Your task to perform on an android device: Go to Yahoo.com Image 0: 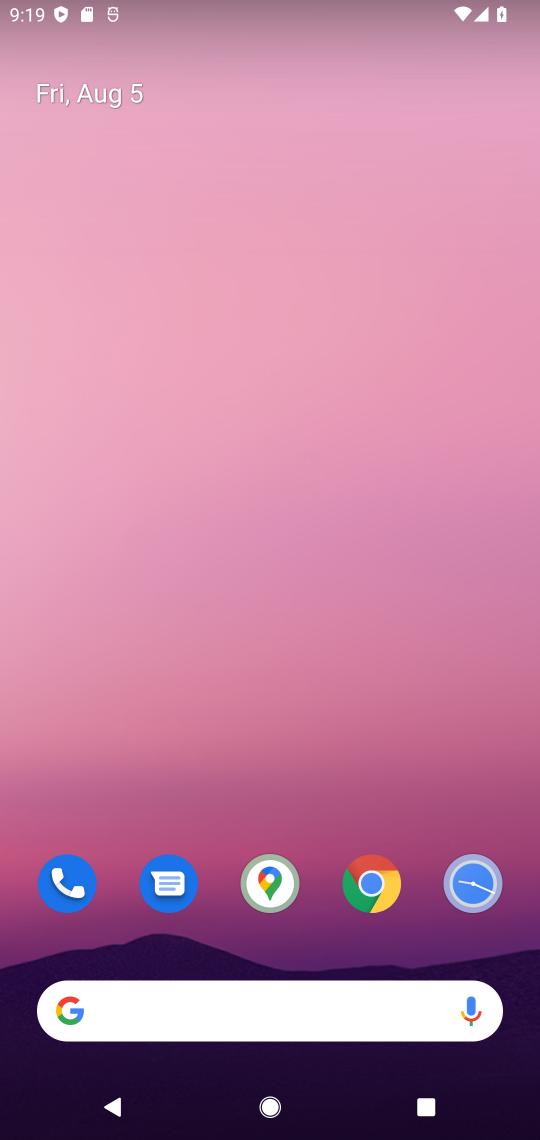
Step 0: click (366, 898)
Your task to perform on an android device: Go to Yahoo.com Image 1: 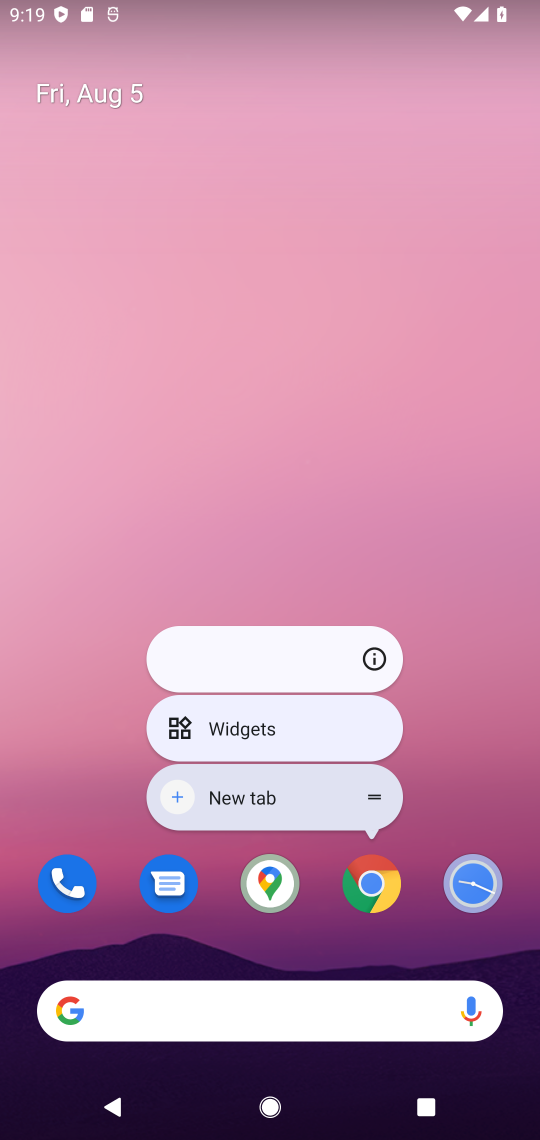
Step 1: click (366, 895)
Your task to perform on an android device: Go to Yahoo.com Image 2: 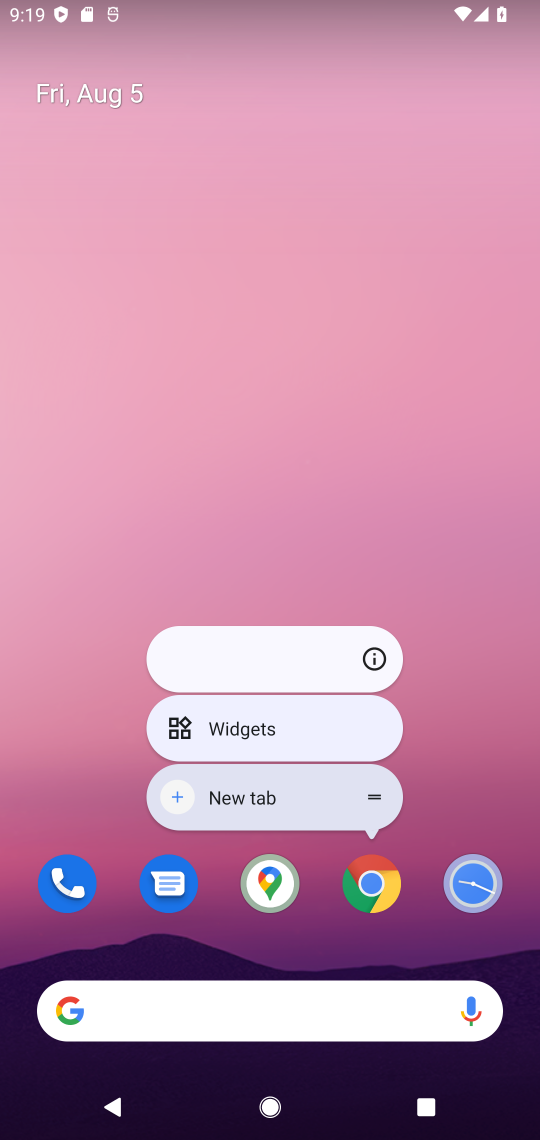
Step 2: click (382, 889)
Your task to perform on an android device: Go to Yahoo.com Image 3: 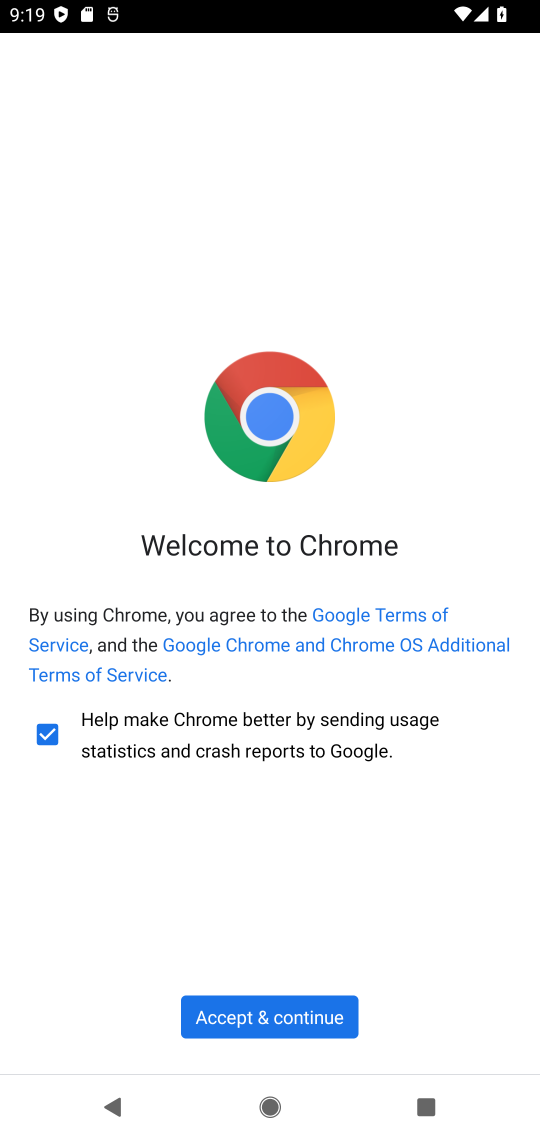
Step 3: click (296, 1006)
Your task to perform on an android device: Go to Yahoo.com Image 4: 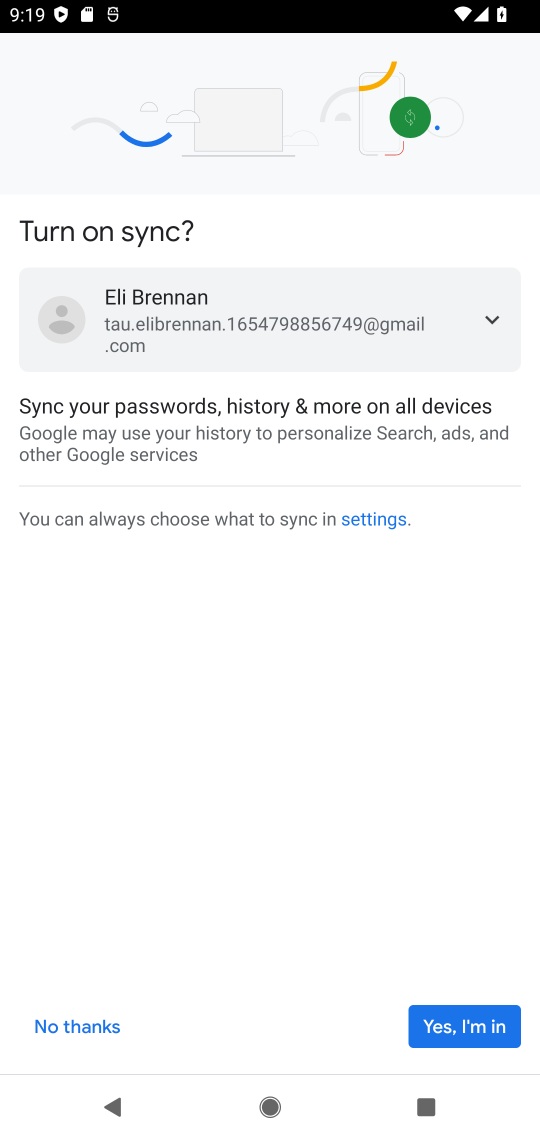
Step 4: click (457, 1029)
Your task to perform on an android device: Go to Yahoo.com Image 5: 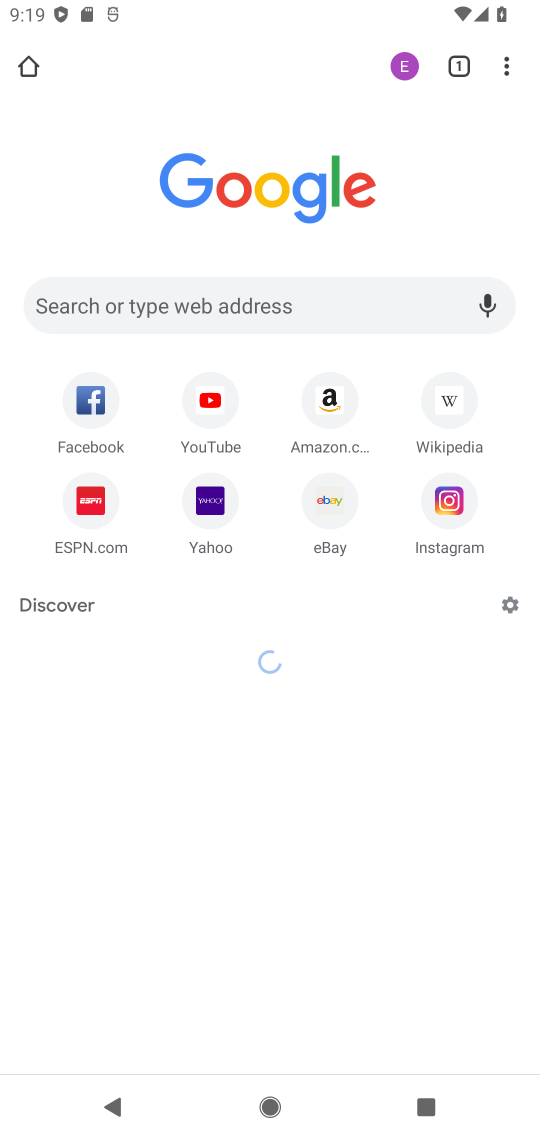
Step 5: click (209, 488)
Your task to perform on an android device: Go to Yahoo.com Image 6: 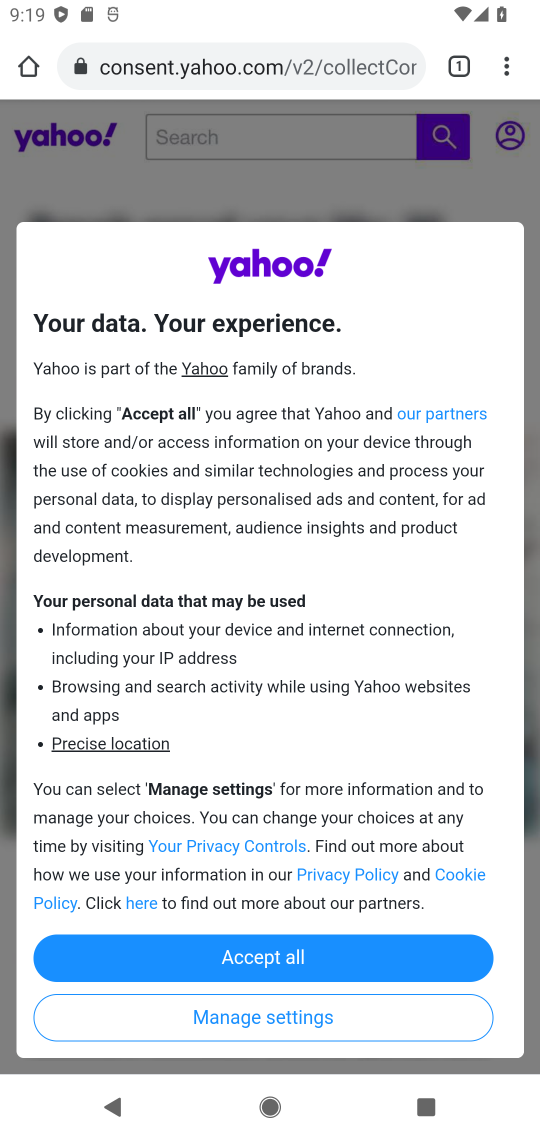
Step 6: task complete